Your task to perform on an android device: open app "Spotify: Music and Podcasts" (install if not already installed) Image 0: 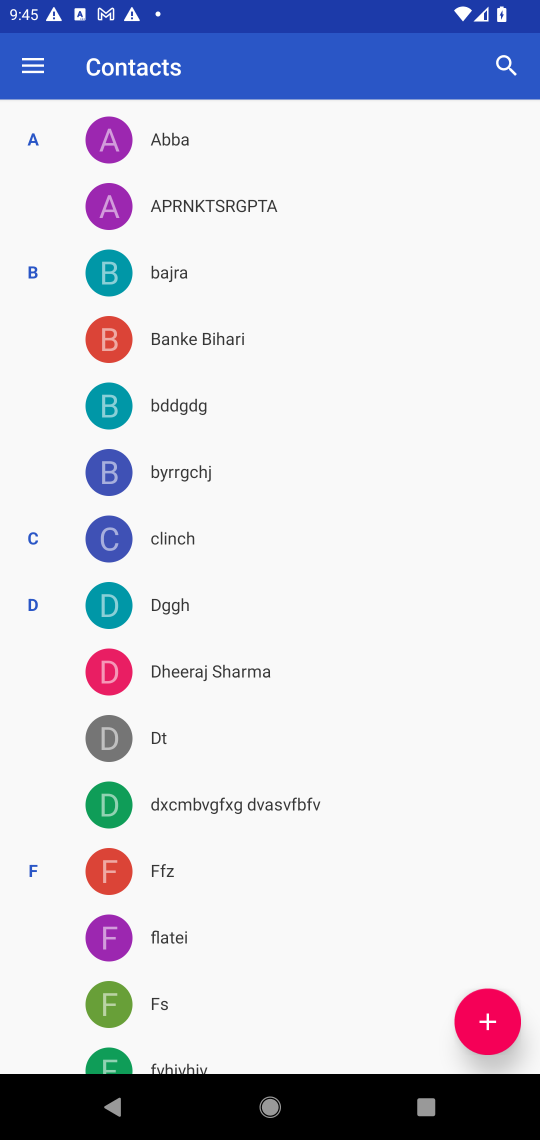
Step 0: press home button
Your task to perform on an android device: open app "Spotify: Music and Podcasts" (install if not already installed) Image 1: 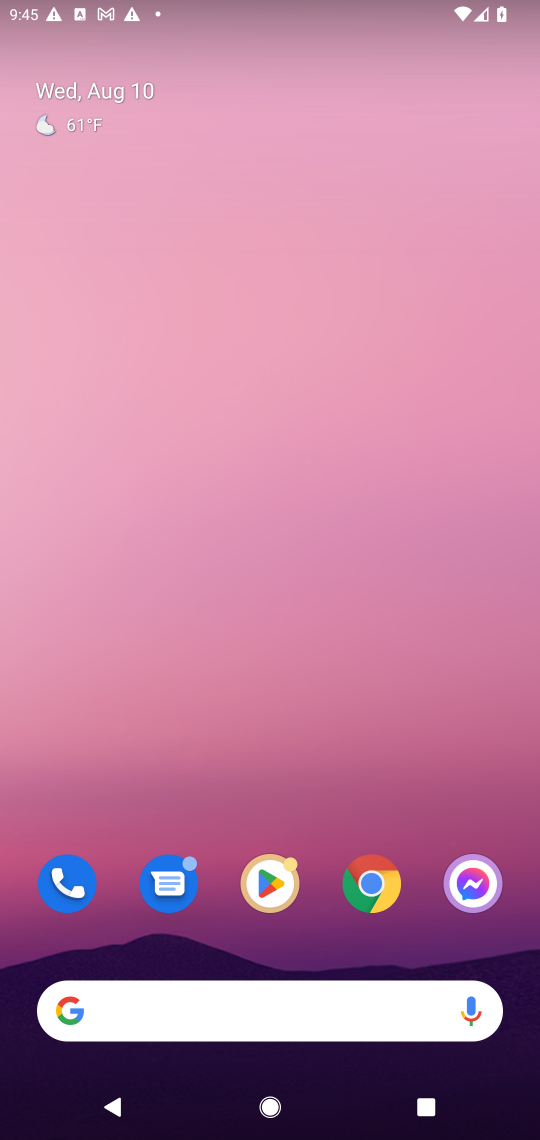
Step 1: click (253, 863)
Your task to perform on an android device: open app "Spotify: Music and Podcasts" (install if not already installed) Image 2: 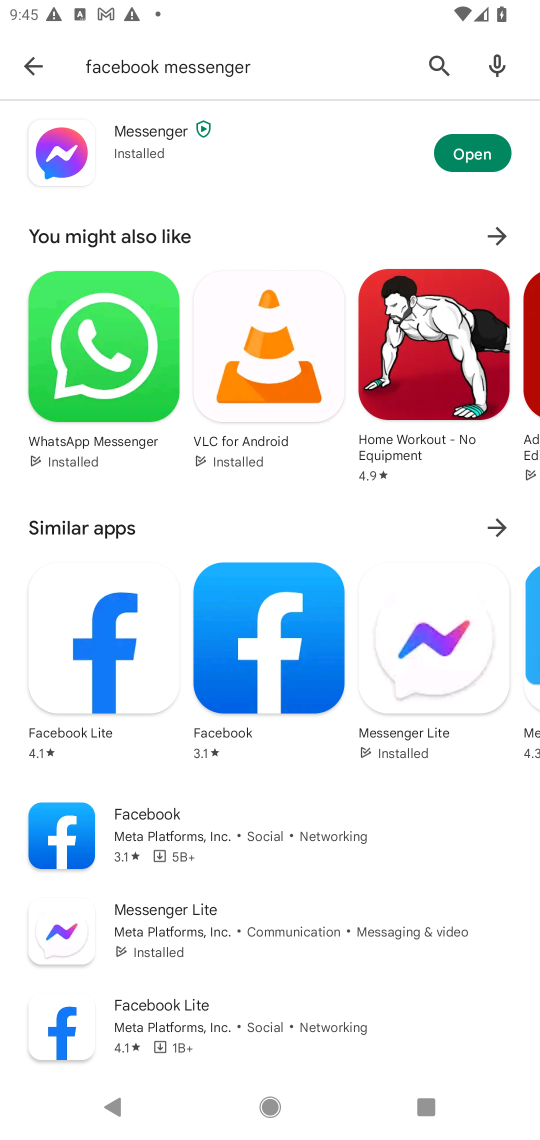
Step 2: click (434, 71)
Your task to perform on an android device: open app "Spotify: Music and Podcasts" (install if not already installed) Image 3: 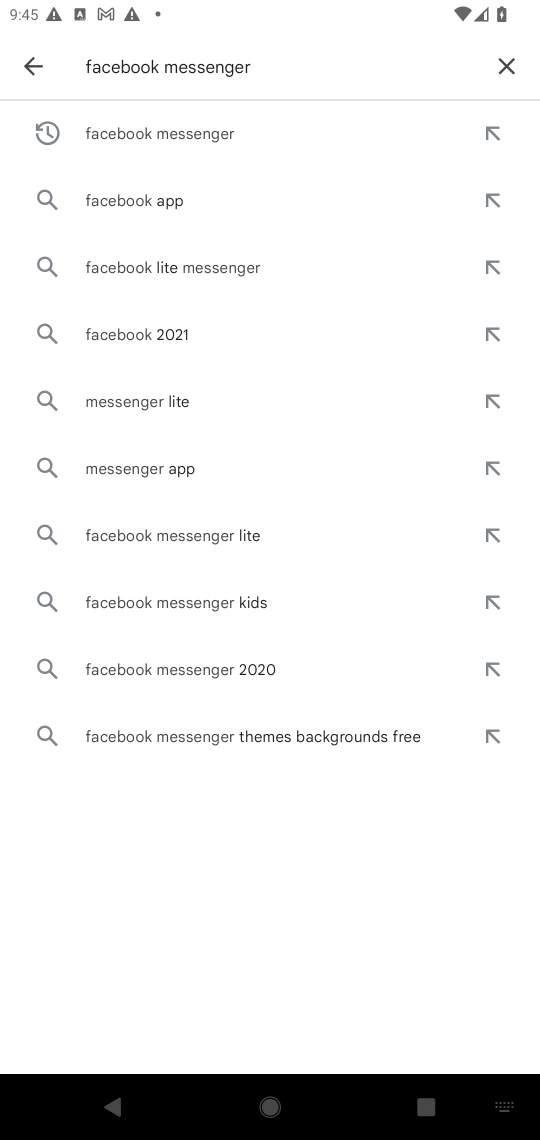
Step 3: click (497, 70)
Your task to perform on an android device: open app "Spotify: Music and Podcasts" (install if not already installed) Image 4: 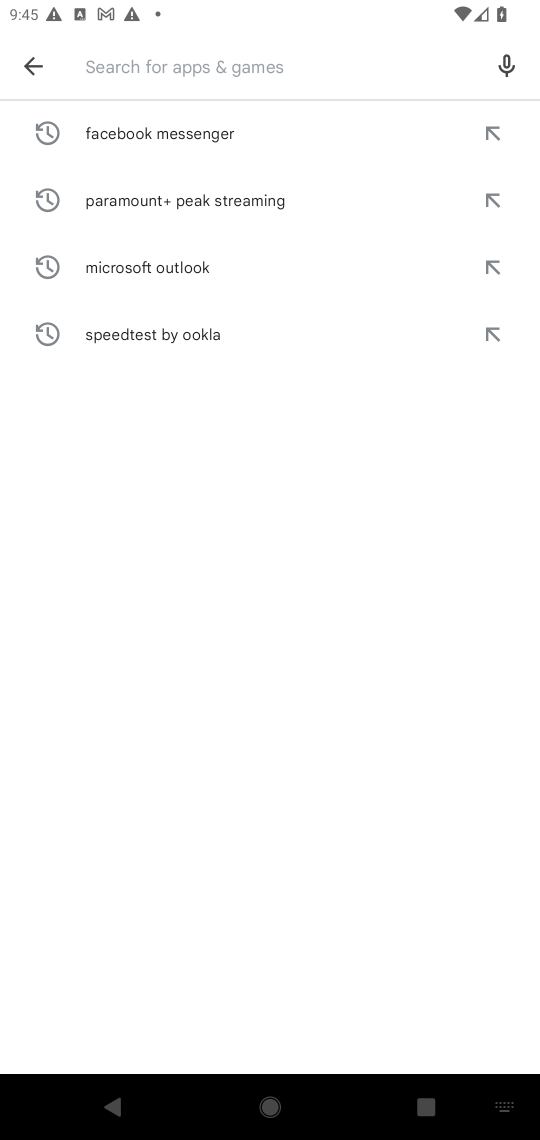
Step 4: type "Spotify: Music and Podcasts"
Your task to perform on an android device: open app "Spotify: Music and Podcasts" (install if not already installed) Image 5: 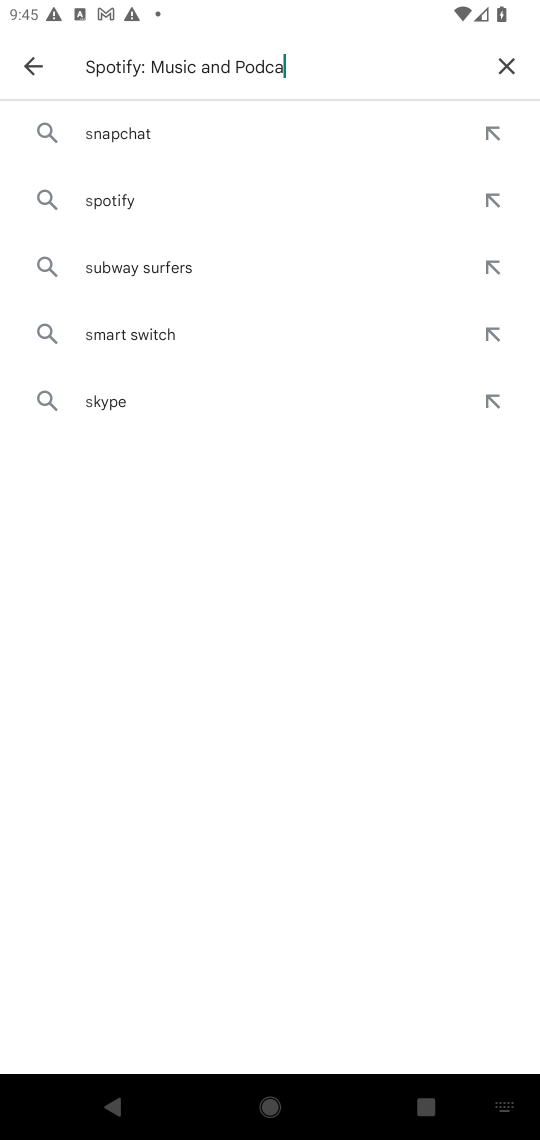
Step 5: type ""
Your task to perform on an android device: open app "Spotify: Music and Podcasts" (install if not already installed) Image 6: 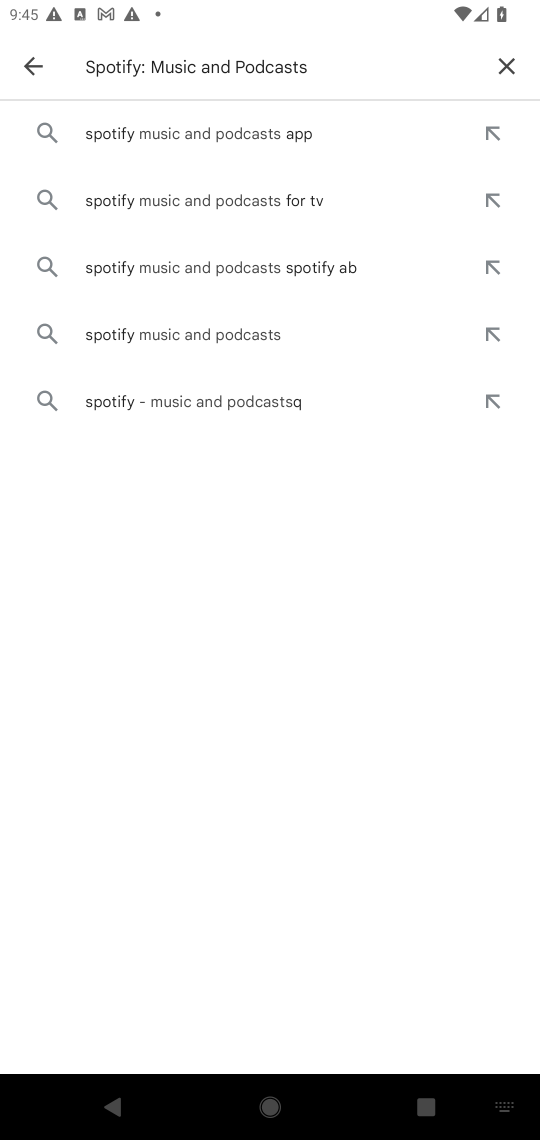
Step 6: click (195, 132)
Your task to perform on an android device: open app "Spotify: Music and Podcasts" (install if not already installed) Image 7: 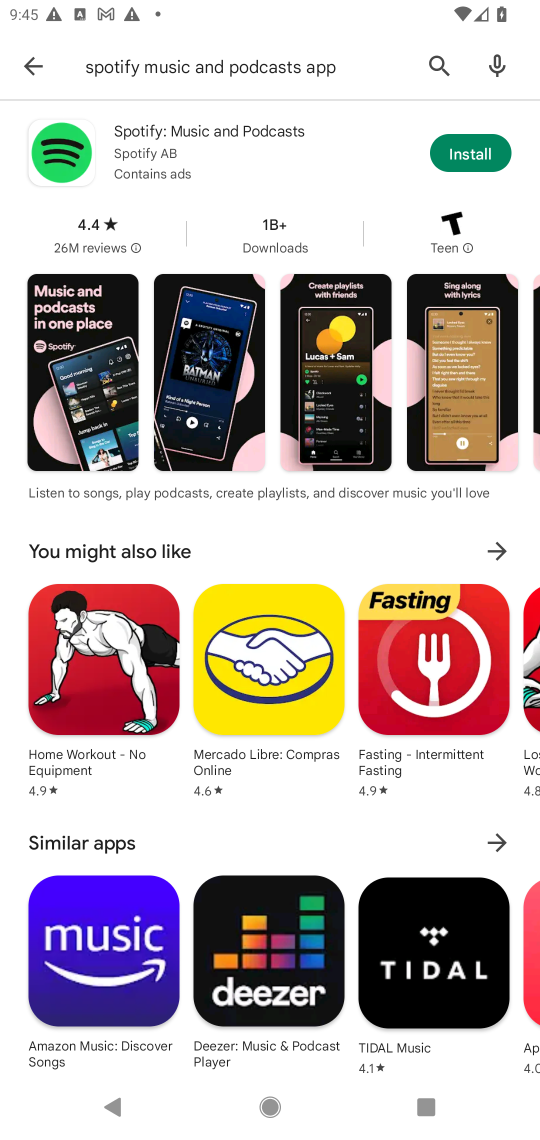
Step 7: click (459, 160)
Your task to perform on an android device: open app "Spotify: Music and Podcasts" (install if not already installed) Image 8: 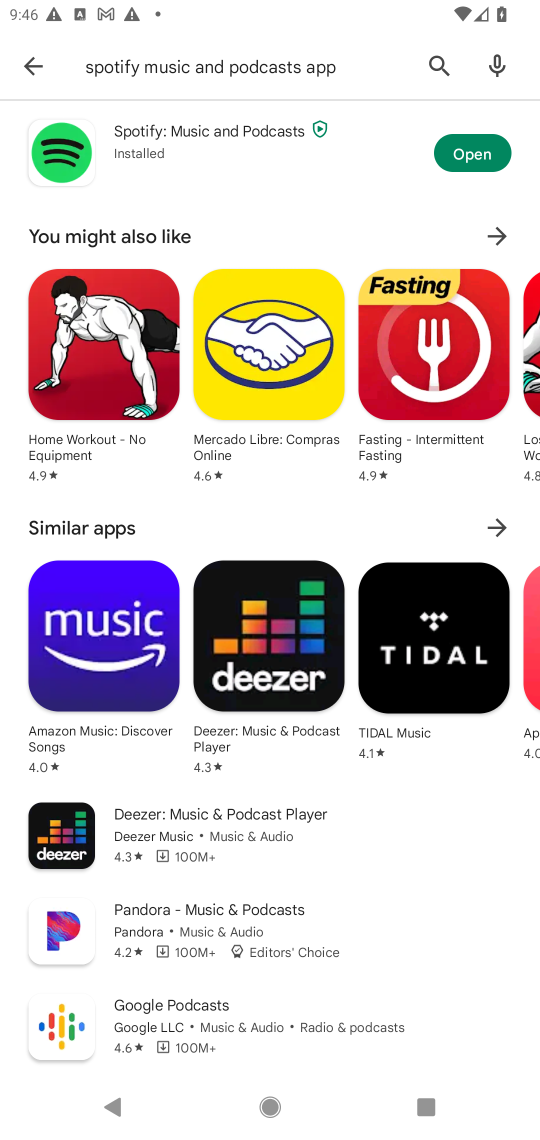
Step 8: click (469, 166)
Your task to perform on an android device: open app "Spotify: Music and Podcasts" (install if not already installed) Image 9: 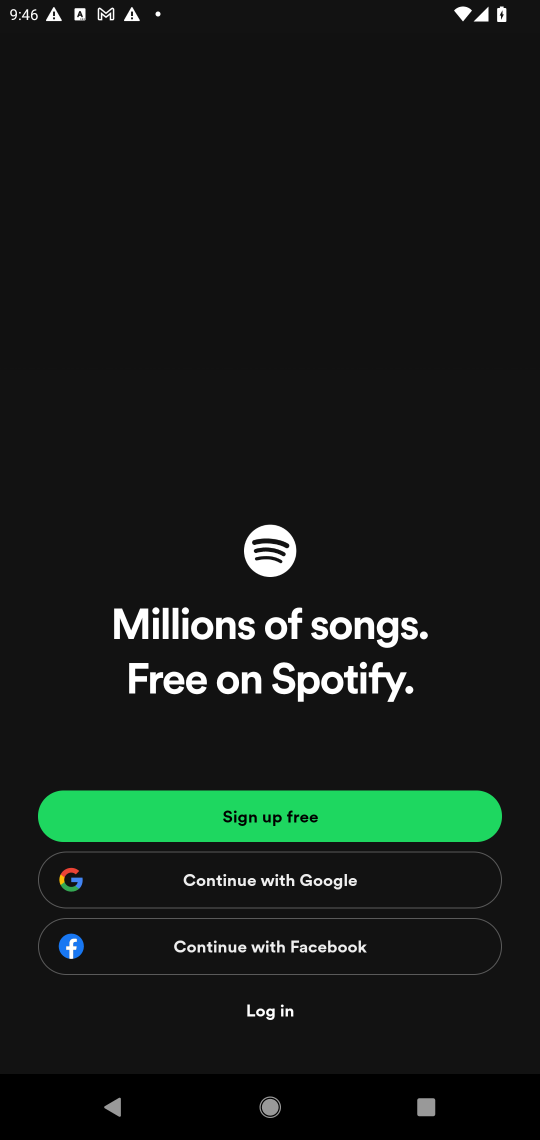
Step 9: task complete